Your task to perform on an android device: visit the assistant section in the google photos Image 0: 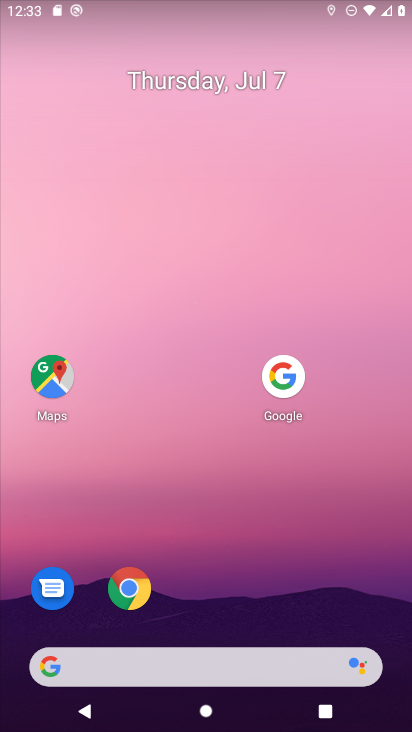
Step 0: drag from (221, 665) to (306, 163)
Your task to perform on an android device: visit the assistant section in the google photos Image 1: 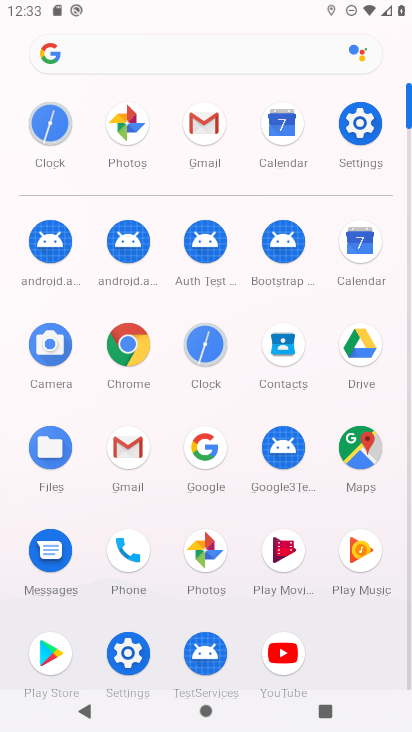
Step 1: click (199, 553)
Your task to perform on an android device: visit the assistant section in the google photos Image 2: 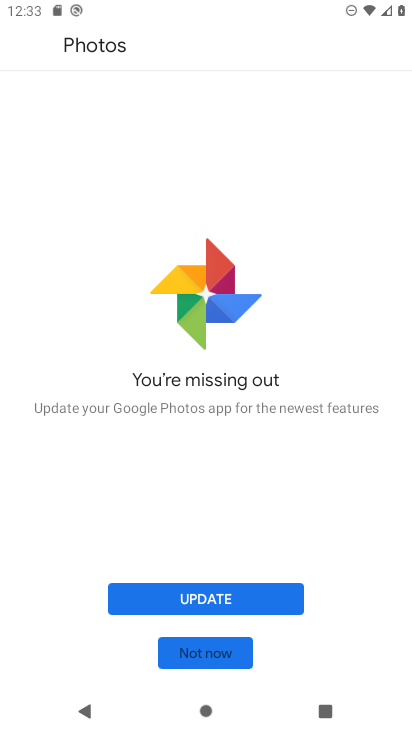
Step 2: click (189, 648)
Your task to perform on an android device: visit the assistant section in the google photos Image 3: 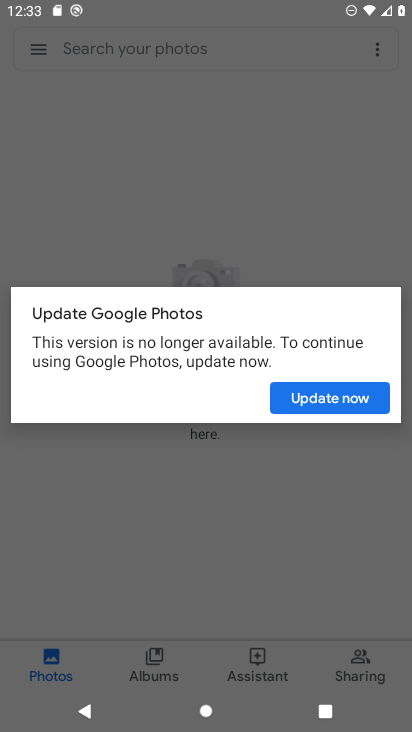
Step 3: click (318, 401)
Your task to perform on an android device: visit the assistant section in the google photos Image 4: 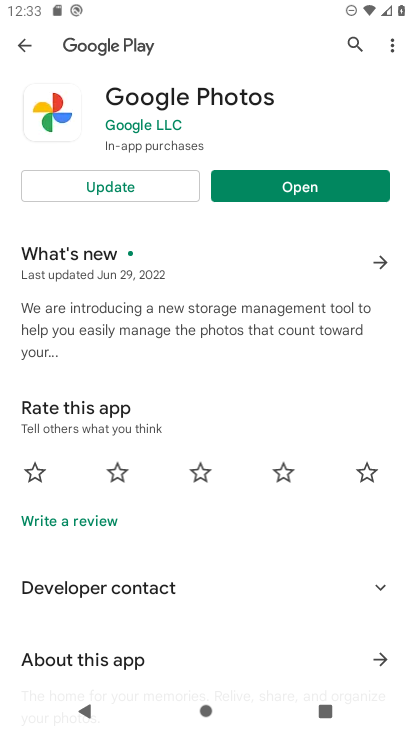
Step 4: click (248, 179)
Your task to perform on an android device: visit the assistant section in the google photos Image 5: 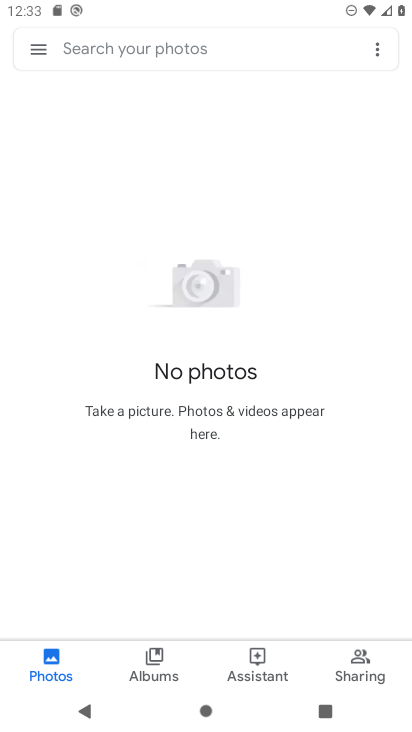
Step 5: click (253, 659)
Your task to perform on an android device: visit the assistant section in the google photos Image 6: 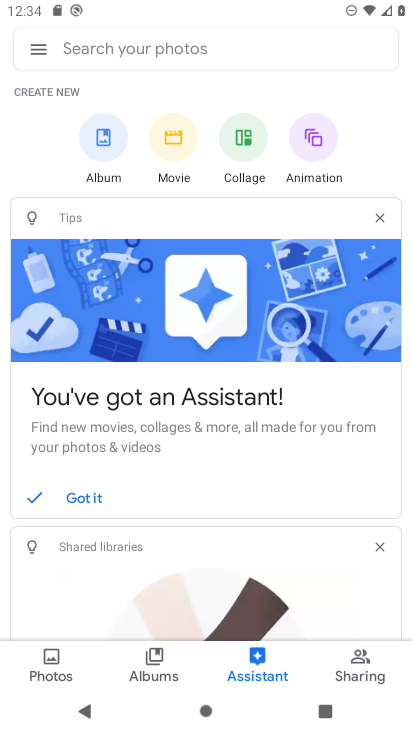
Step 6: task complete